Your task to perform on an android device: check out phone information Image 0: 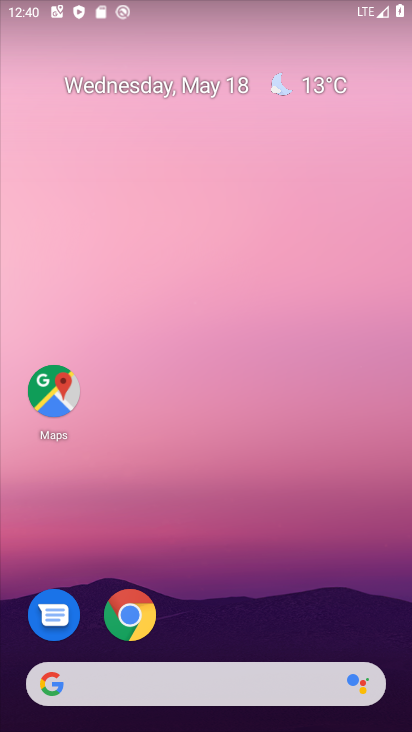
Step 0: press home button
Your task to perform on an android device: check out phone information Image 1: 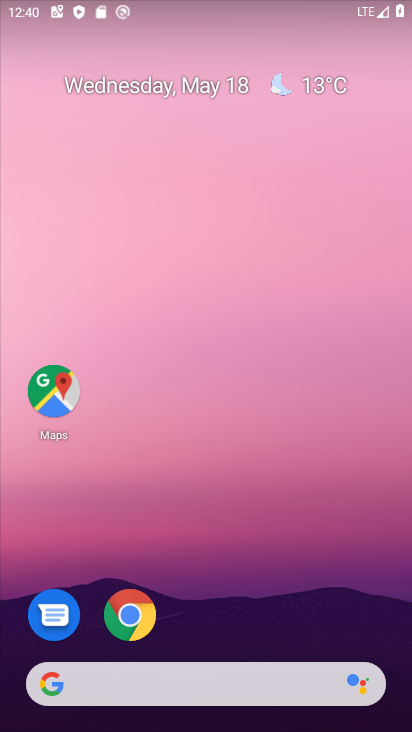
Step 1: drag from (152, 593) to (252, 182)
Your task to perform on an android device: check out phone information Image 2: 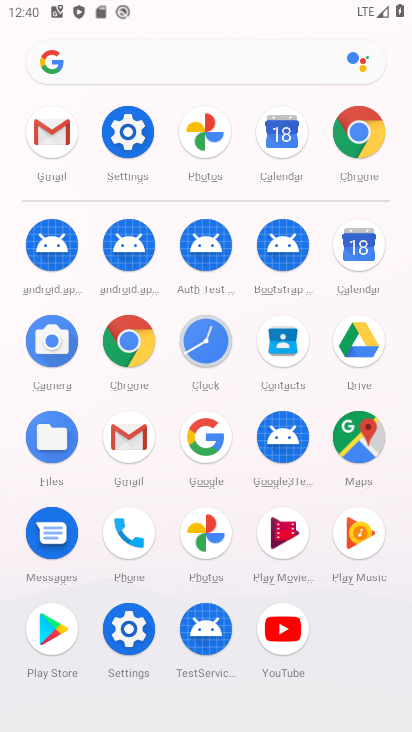
Step 2: click (132, 136)
Your task to perform on an android device: check out phone information Image 3: 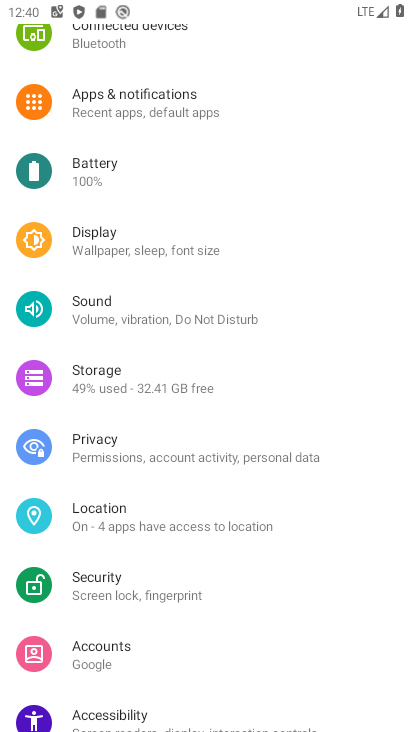
Step 3: drag from (179, 680) to (322, 230)
Your task to perform on an android device: check out phone information Image 4: 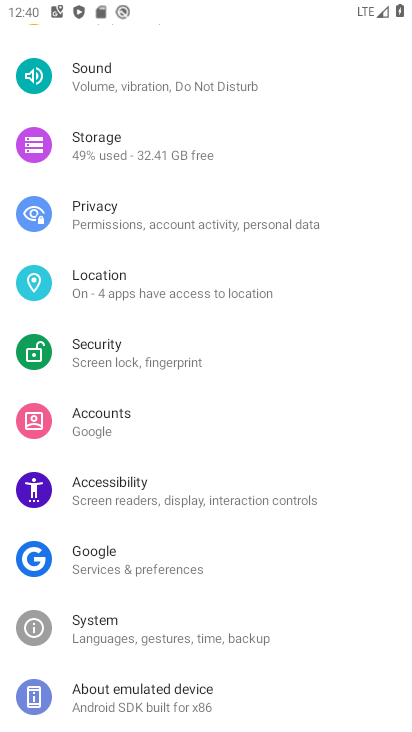
Step 4: click (137, 700)
Your task to perform on an android device: check out phone information Image 5: 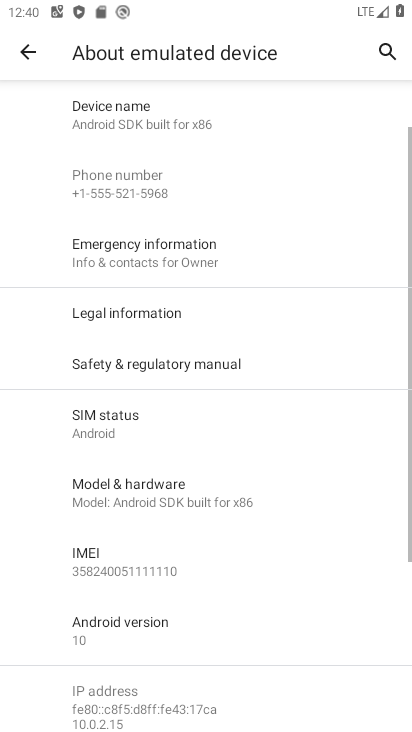
Step 5: task complete